Your task to perform on an android device: When is my next appointment? Image 0: 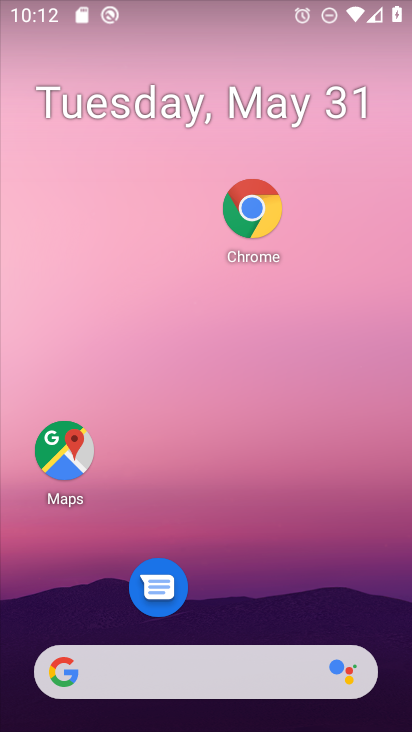
Step 0: drag from (229, 624) to (223, 16)
Your task to perform on an android device: When is my next appointment? Image 1: 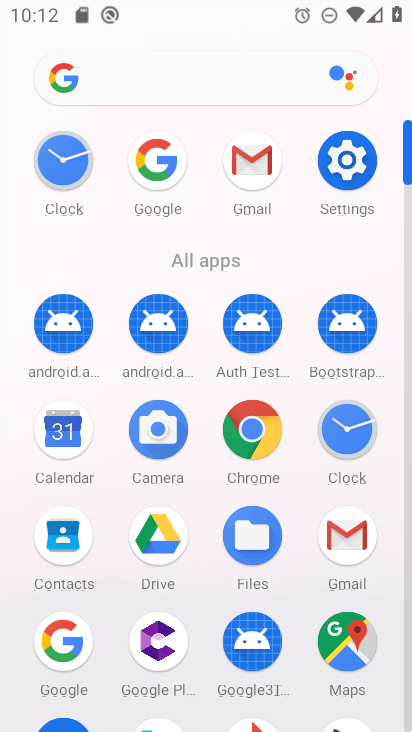
Step 1: click (62, 428)
Your task to perform on an android device: When is my next appointment? Image 2: 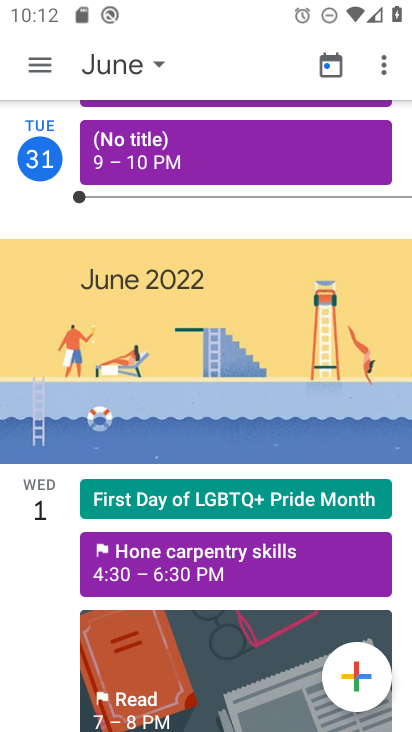
Step 2: task complete